Your task to perform on an android device: Go to Reddit.com Image 0: 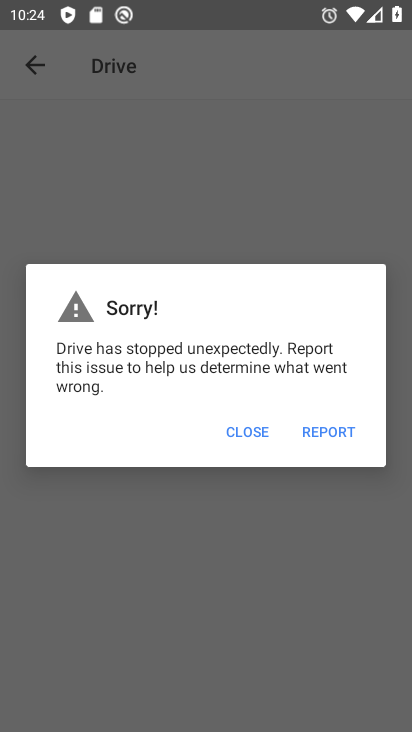
Step 0: press home button
Your task to perform on an android device: Go to Reddit.com Image 1: 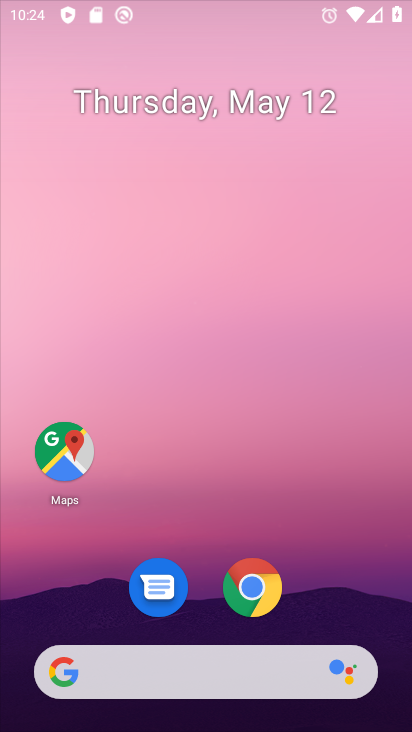
Step 1: drag from (355, 572) to (301, 163)
Your task to perform on an android device: Go to Reddit.com Image 2: 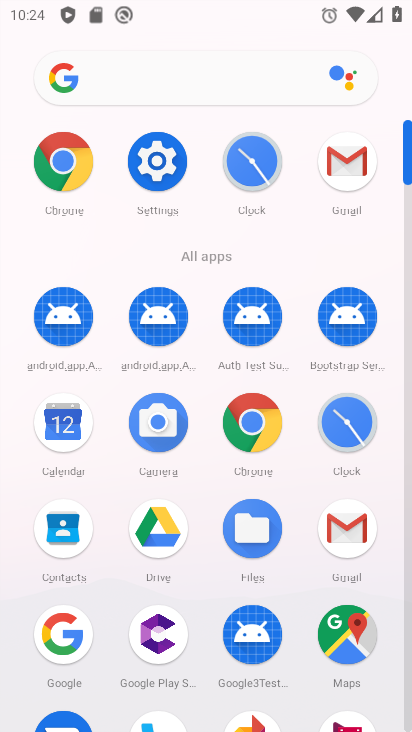
Step 2: click (252, 404)
Your task to perform on an android device: Go to Reddit.com Image 3: 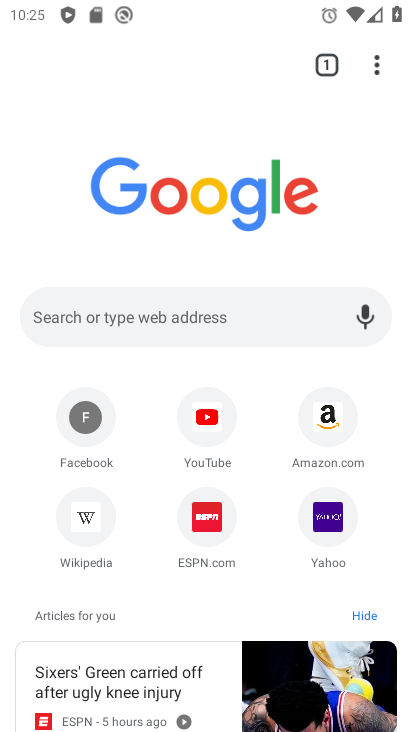
Step 3: click (175, 310)
Your task to perform on an android device: Go to Reddit.com Image 4: 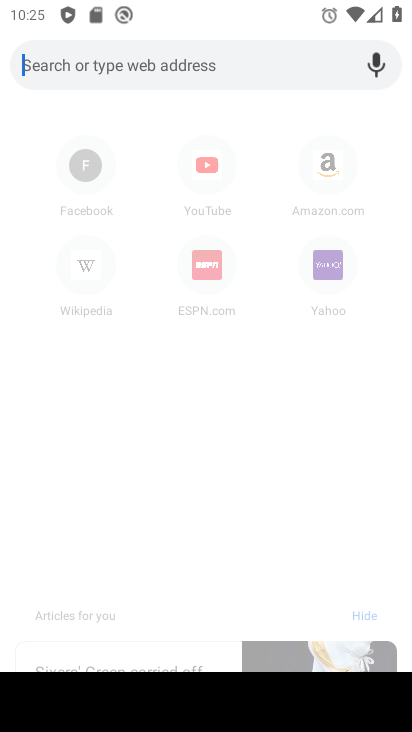
Step 4: type "reddit"
Your task to perform on an android device: Go to Reddit.com Image 5: 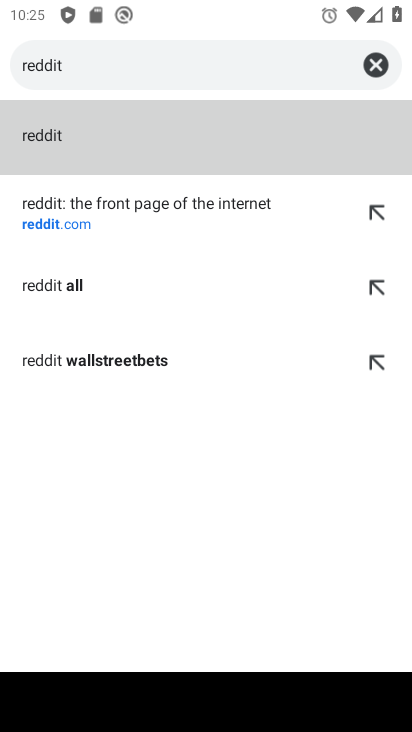
Step 5: click (111, 210)
Your task to perform on an android device: Go to Reddit.com Image 6: 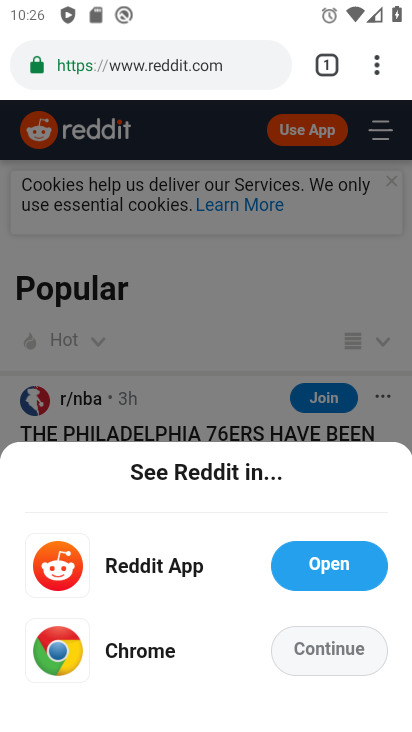
Step 6: task complete